Your task to perform on an android device: turn on improve location accuracy Image 0: 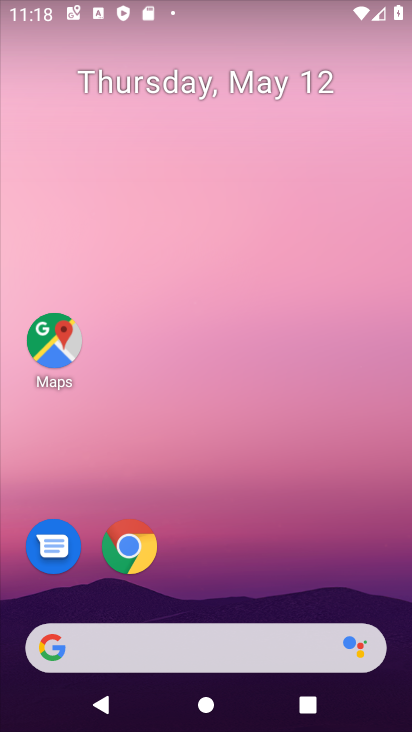
Step 0: drag from (286, 682) to (225, 274)
Your task to perform on an android device: turn on improve location accuracy Image 1: 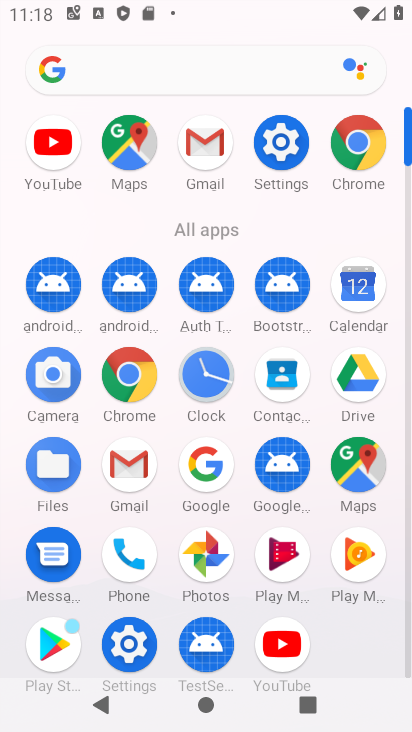
Step 1: click (143, 634)
Your task to perform on an android device: turn on improve location accuracy Image 2: 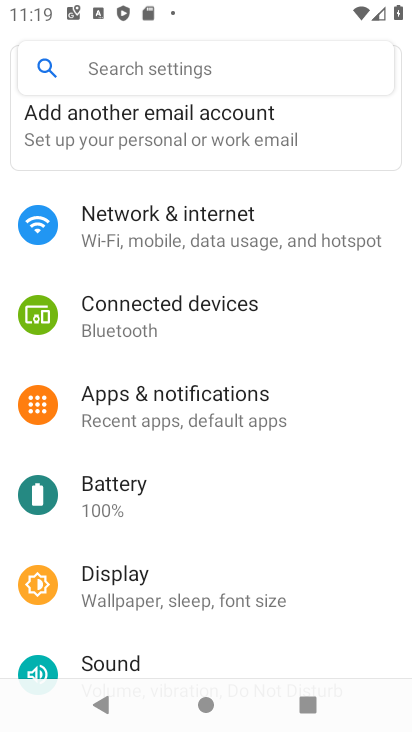
Step 2: drag from (184, 603) to (206, 274)
Your task to perform on an android device: turn on improve location accuracy Image 3: 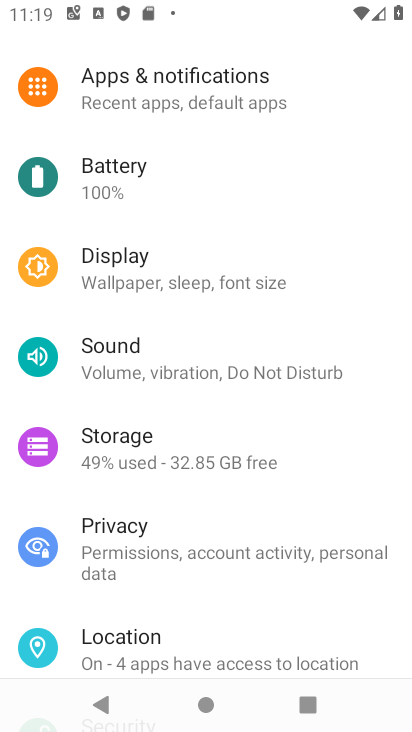
Step 3: click (145, 652)
Your task to perform on an android device: turn on improve location accuracy Image 4: 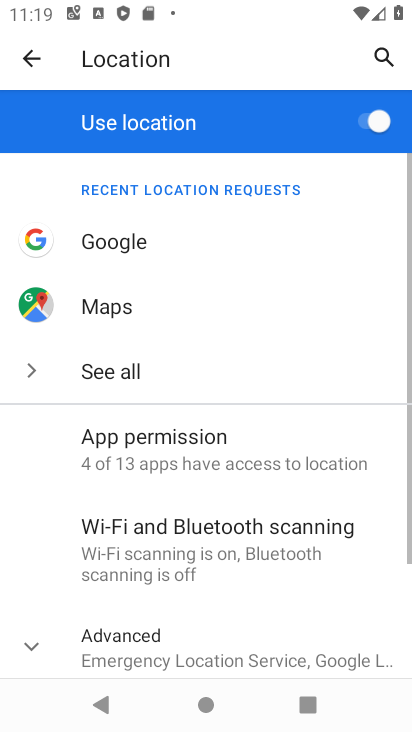
Step 4: drag from (145, 636) to (143, 387)
Your task to perform on an android device: turn on improve location accuracy Image 5: 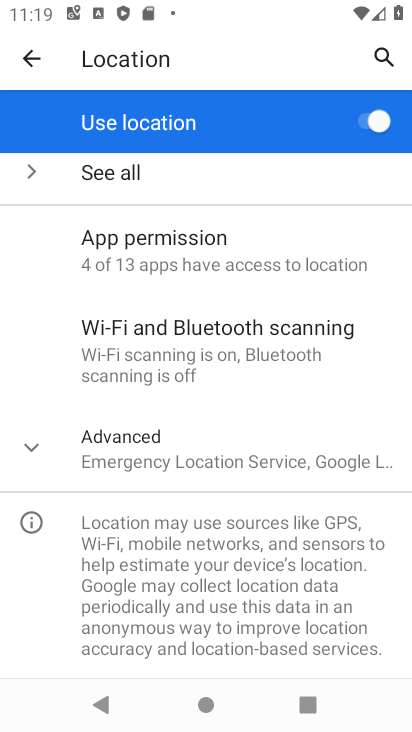
Step 5: click (38, 454)
Your task to perform on an android device: turn on improve location accuracy Image 6: 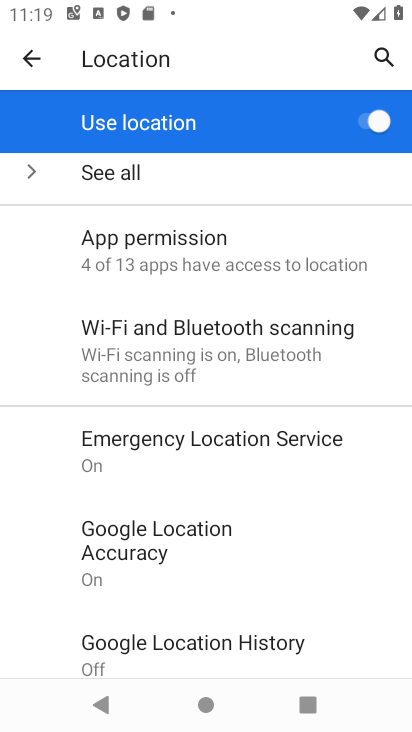
Step 6: click (163, 541)
Your task to perform on an android device: turn on improve location accuracy Image 7: 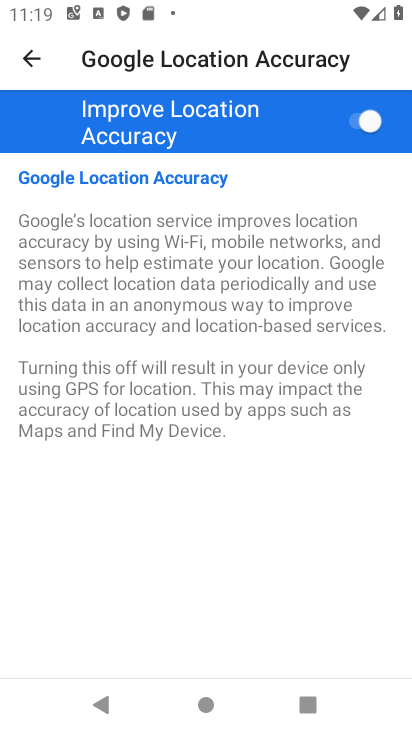
Step 7: click (343, 118)
Your task to perform on an android device: turn on improve location accuracy Image 8: 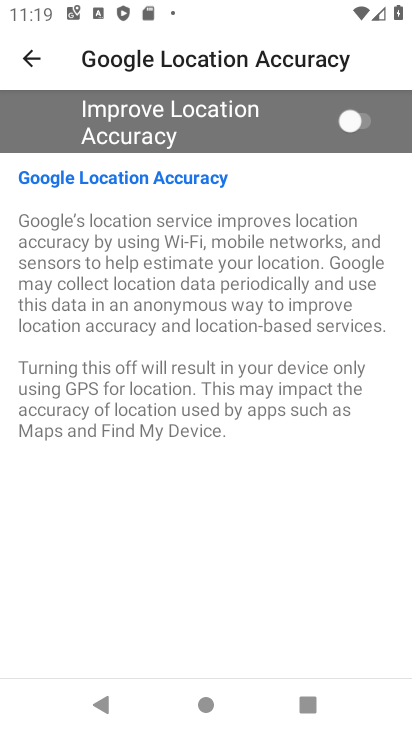
Step 8: click (343, 118)
Your task to perform on an android device: turn on improve location accuracy Image 9: 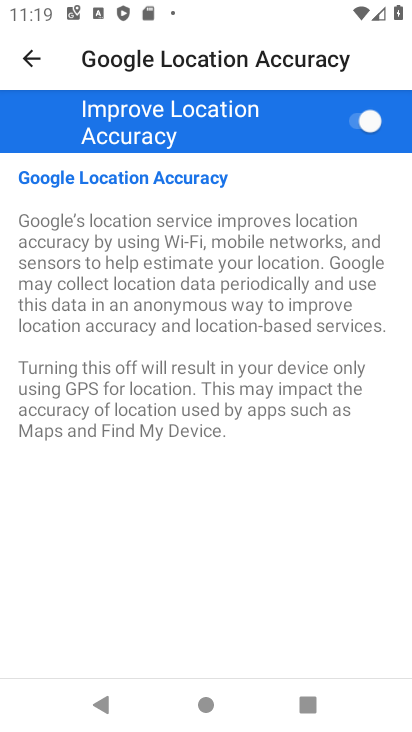
Step 9: task complete